Your task to perform on an android device: stop showing notifications on the lock screen Image 0: 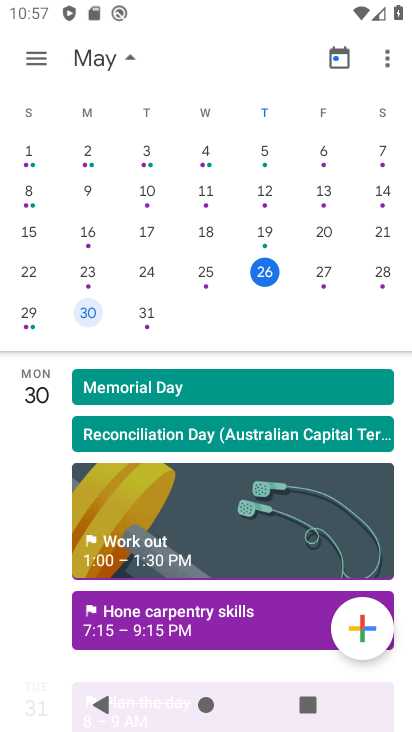
Step 0: press home button
Your task to perform on an android device: stop showing notifications on the lock screen Image 1: 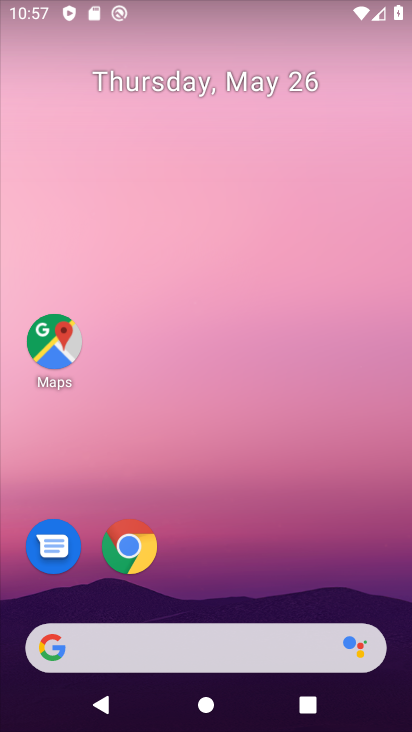
Step 1: drag from (244, 569) to (272, 130)
Your task to perform on an android device: stop showing notifications on the lock screen Image 2: 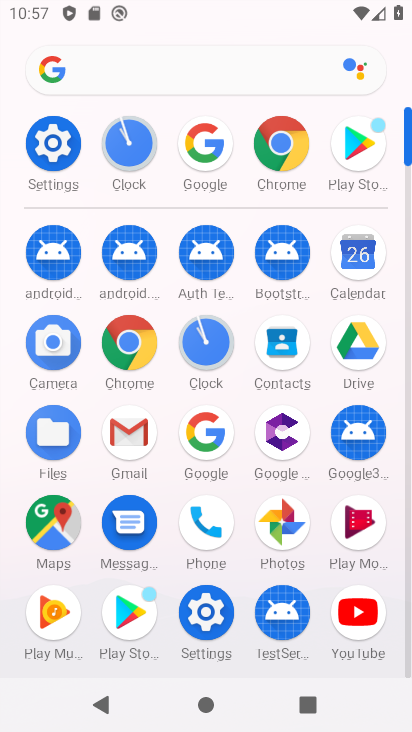
Step 2: click (50, 145)
Your task to perform on an android device: stop showing notifications on the lock screen Image 3: 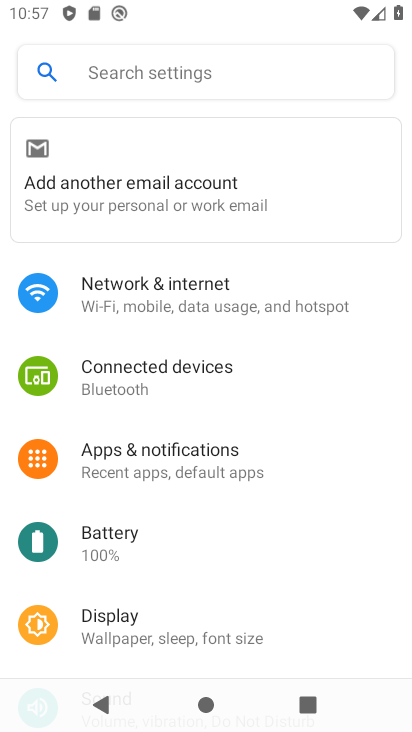
Step 3: click (179, 463)
Your task to perform on an android device: stop showing notifications on the lock screen Image 4: 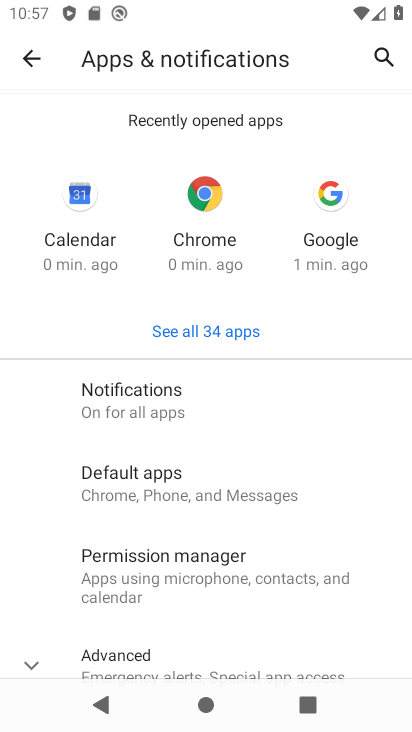
Step 4: click (147, 414)
Your task to perform on an android device: stop showing notifications on the lock screen Image 5: 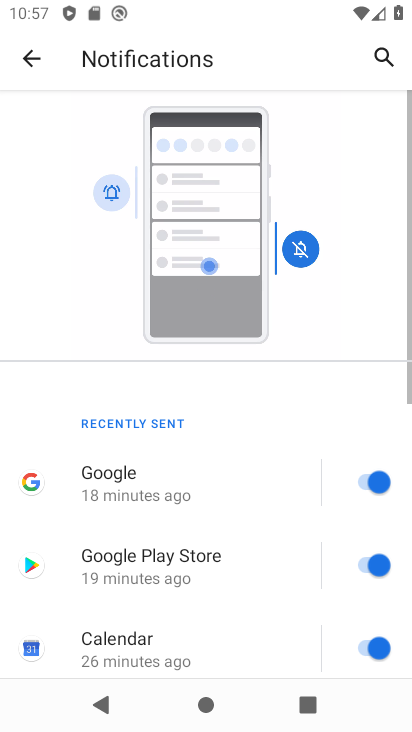
Step 5: drag from (193, 607) to (239, 56)
Your task to perform on an android device: stop showing notifications on the lock screen Image 6: 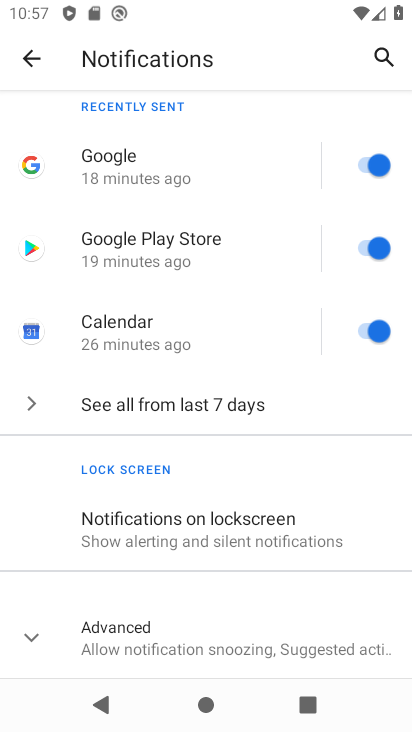
Step 6: click (187, 530)
Your task to perform on an android device: stop showing notifications on the lock screen Image 7: 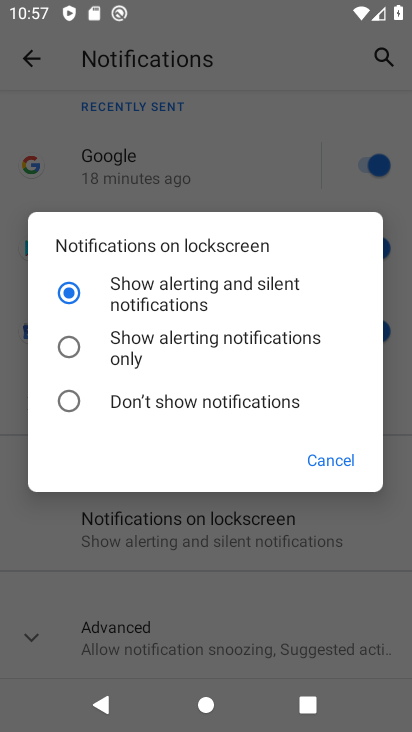
Step 7: click (70, 395)
Your task to perform on an android device: stop showing notifications on the lock screen Image 8: 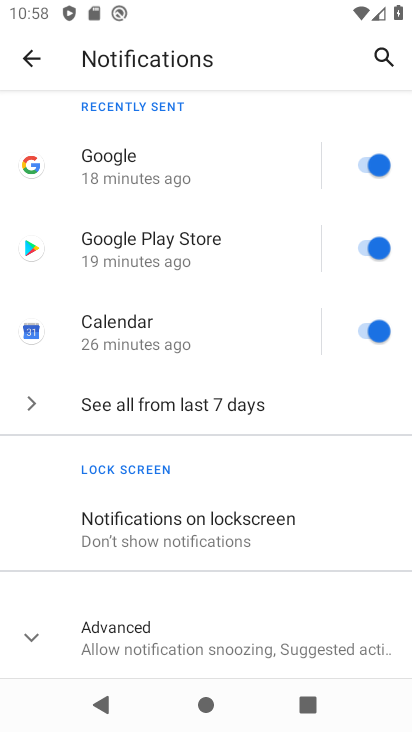
Step 8: task complete